Your task to perform on an android device: Show me productivity apps on the Play Store Image 0: 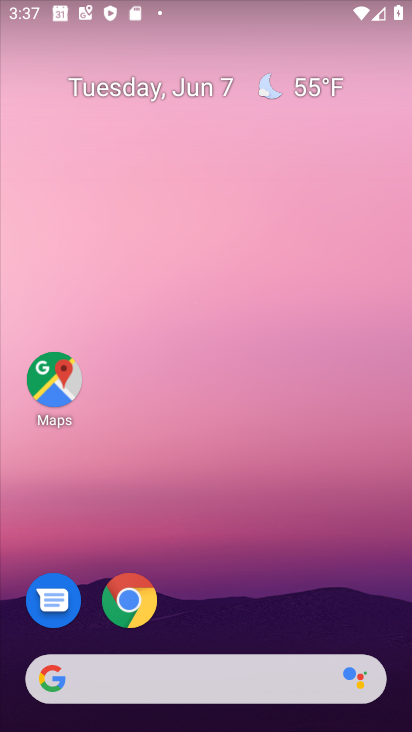
Step 0: press home button
Your task to perform on an android device: Show me productivity apps on the Play Store Image 1: 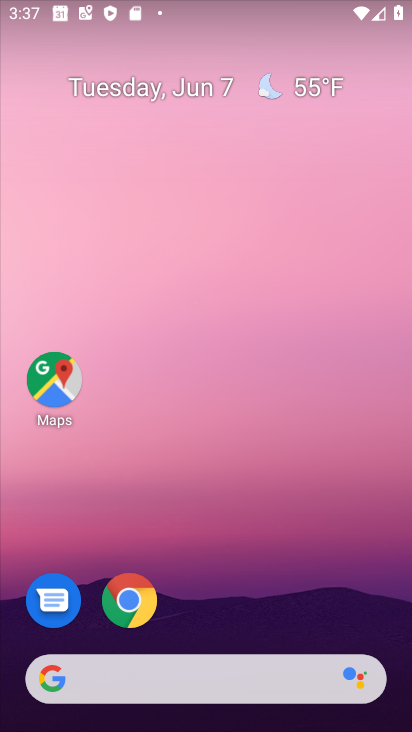
Step 1: drag from (184, 625) to (196, 133)
Your task to perform on an android device: Show me productivity apps on the Play Store Image 2: 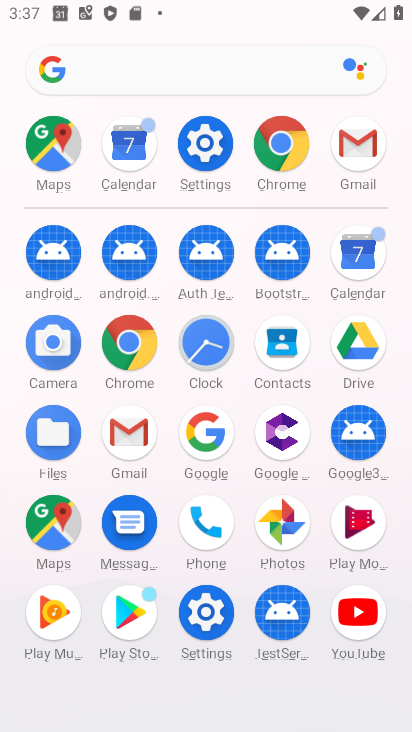
Step 2: click (125, 626)
Your task to perform on an android device: Show me productivity apps on the Play Store Image 3: 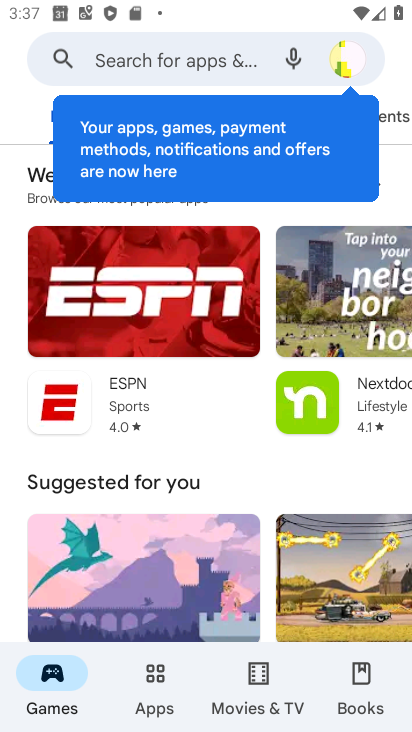
Step 3: click (163, 682)
Your task to perform on an android device: Show me productivity apps on the Play Store Image 4: 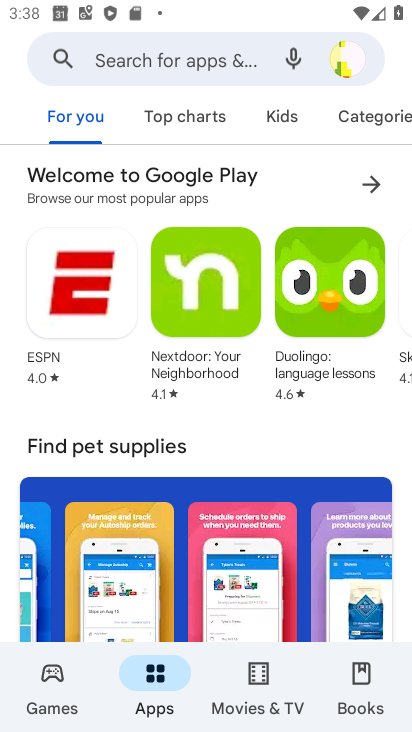
Step 4: click (350, 115)
Your task to perform on an android device: Show me productivity apps on the Play Store Image 5: 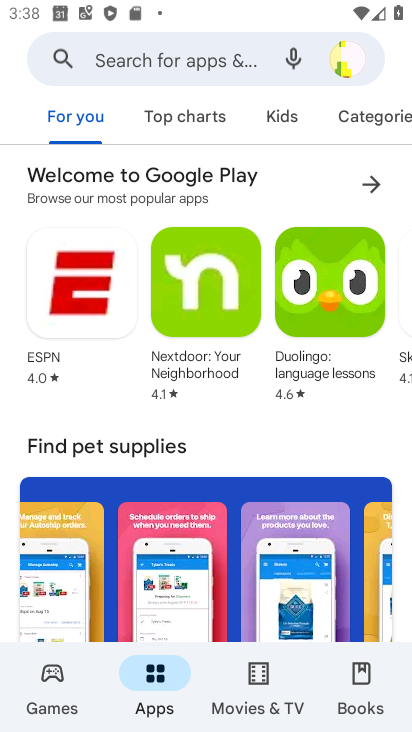
Step 5: click (354, 115)
Your task to perform on an android device: Show me productivity apps on the Play Store Image 6: 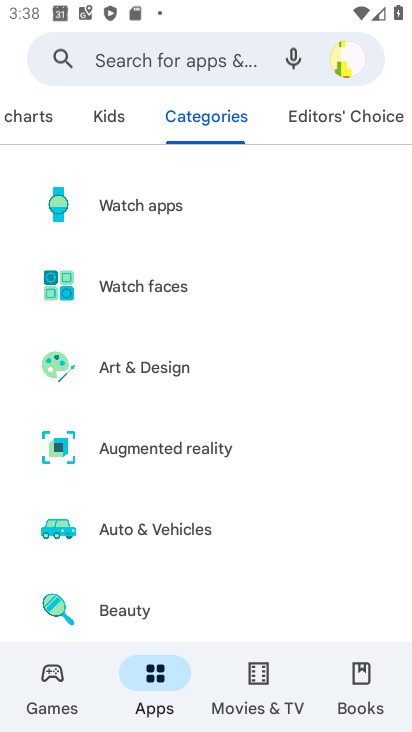
Step 6: drag from (214, 547) to (271, 196)
Your task to perform on an android device: Show me productivity apps on the Play Store Image 7: 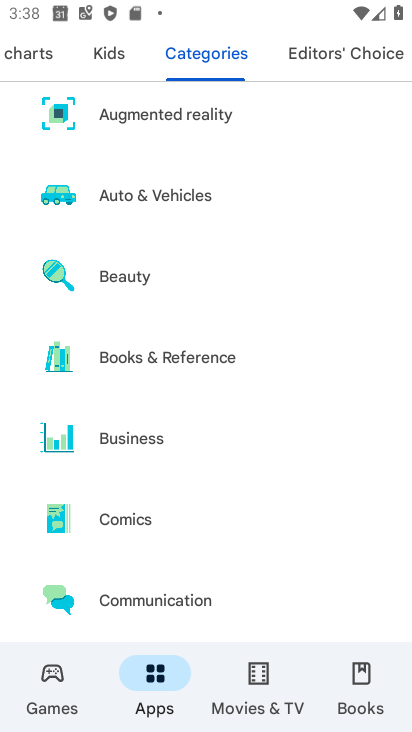
Step 7: drag from (130, 550) to (215, 50)
Your task to perform on an android device: Show me productivity apps on the Play Store Image 8: 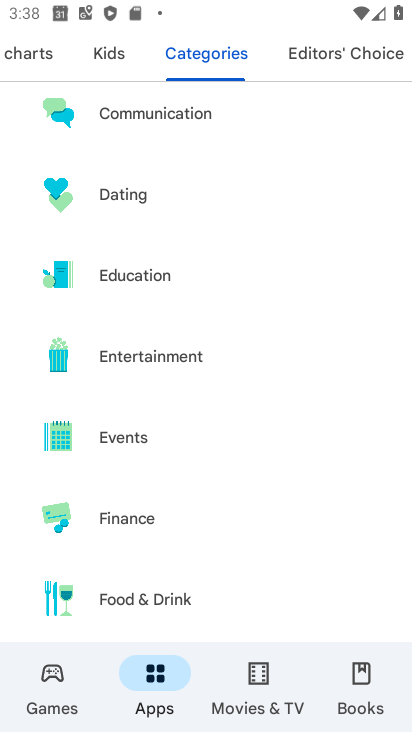
Step 8: drag from (124, 574) to (333, 1)
Your task to perform on an android device: Show me productivity apps on the Play Store Image 9: 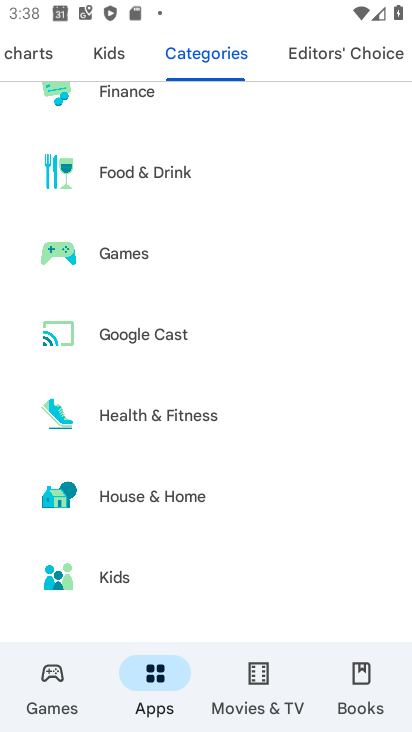
Step 9: drag from (158, 607) to (191, 80)
Your task to perform on an android device: Show me productivity apps on the Play Store Image 10: 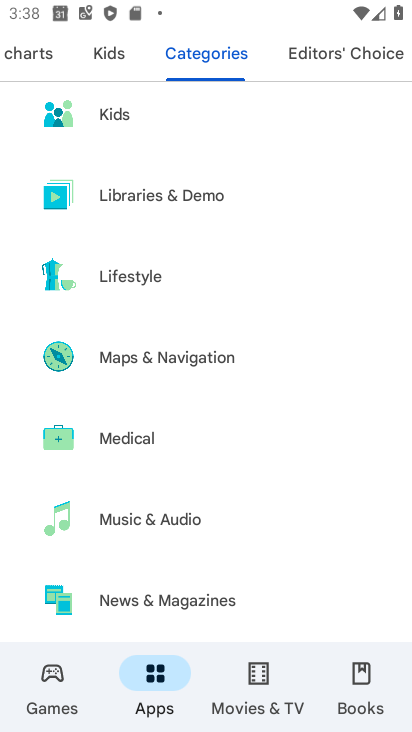
Step 10: drag from (152, 557) to (173, 8)
Your task to perform on an android device: Show me productivity apps on the Play Store Image 11: 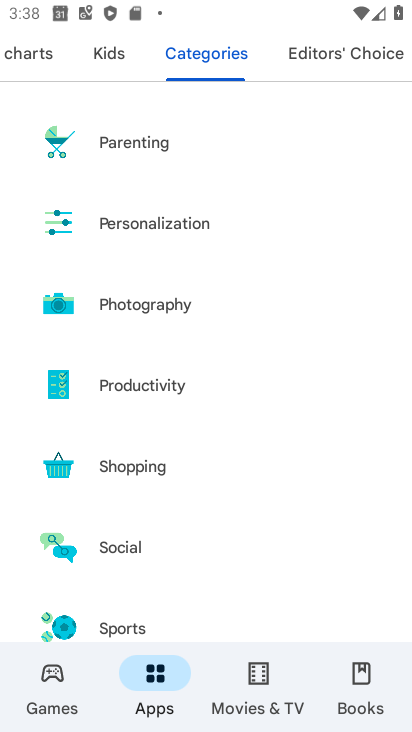
Step 11: click (124, 381)
Your task to perform on an android device: Show me productivity apps on the Play Store Image 12: 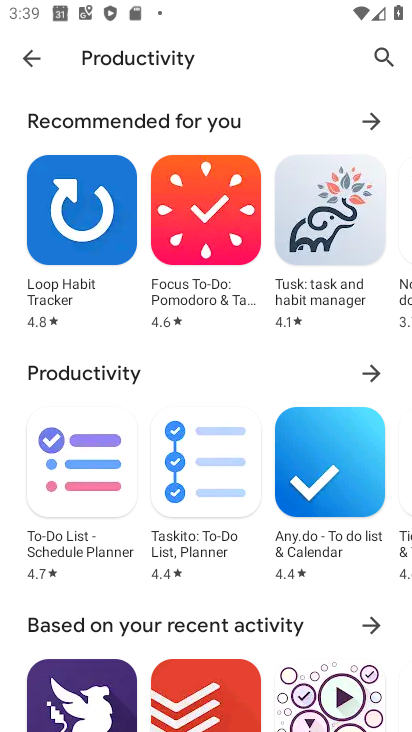
Step 12: task complete